Your task to perform on an android device: add a label to a message in the gmail app Image 0: 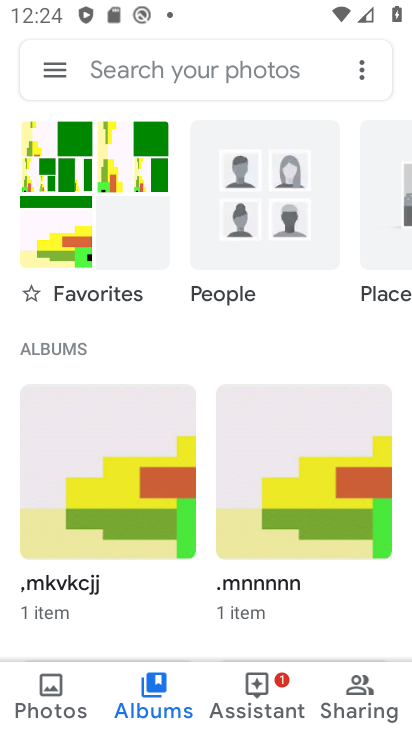
Step 0: press home button
Your task to perform on an android device: add a label to a message in the gmail app Image 1: 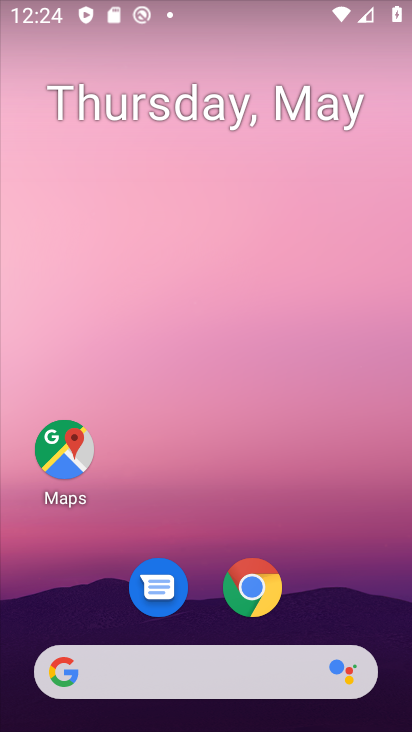
Step 1: drag from (120, 708) to (285, 38)
Your task to perform on an android device: add a label to a message in the gmail app Image 2: 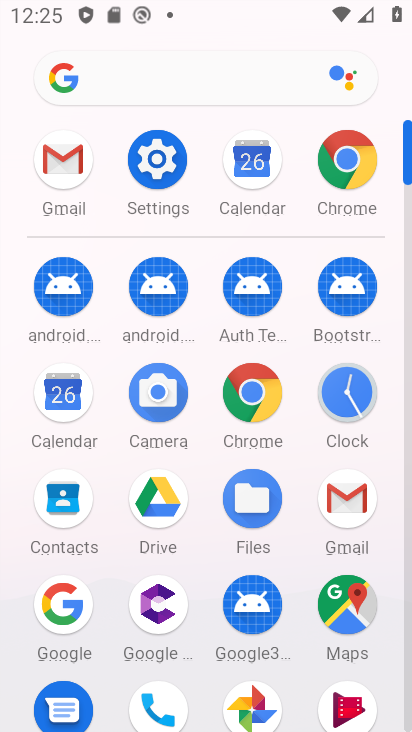
Step 2: click (363, 523)
Your task to perform on an android device: add a label to a message in the gmail app Image 3: 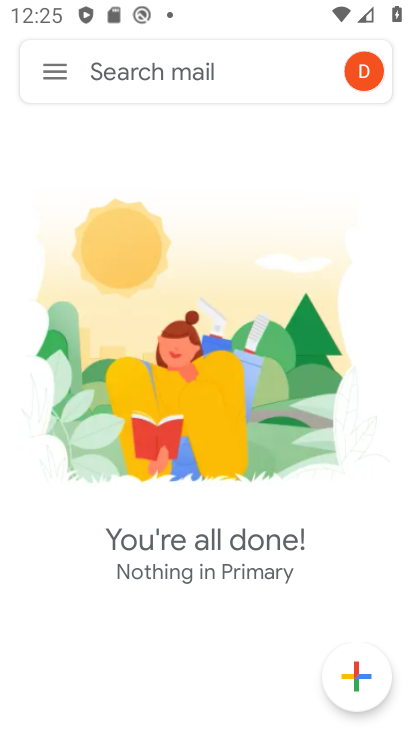
Step 3: click (270, 355)
Your task to perform on an android device: add a label to a message in the gmail app Image 4: 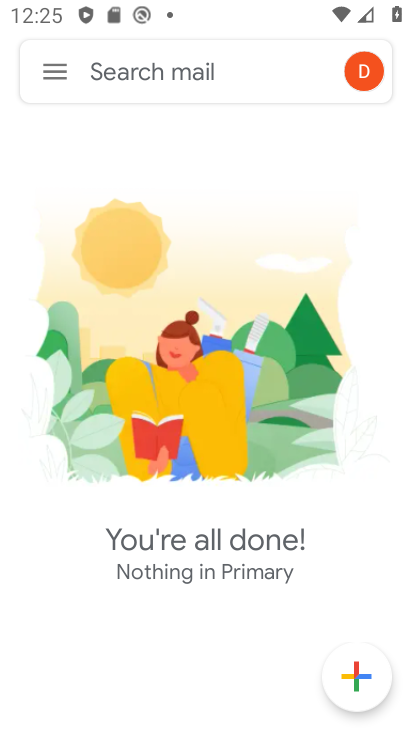
Step 4: task complete